Your task to perform on an android device: toggle notification dots Image 0: 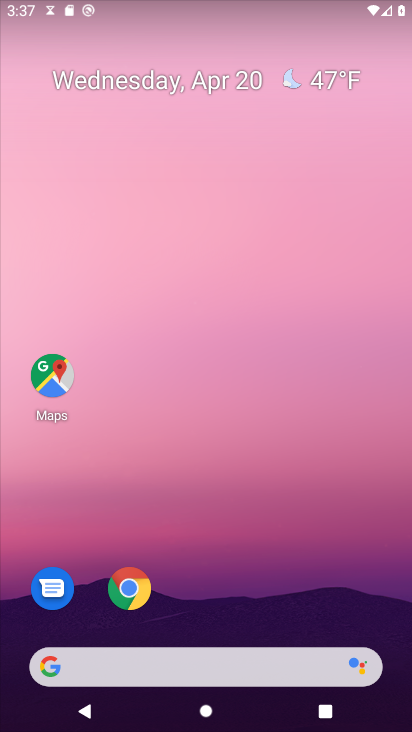
Step 0: drag from (205, 622) to (211, 168)
Your task to perform on an android device: toggle notification dots Image 1: 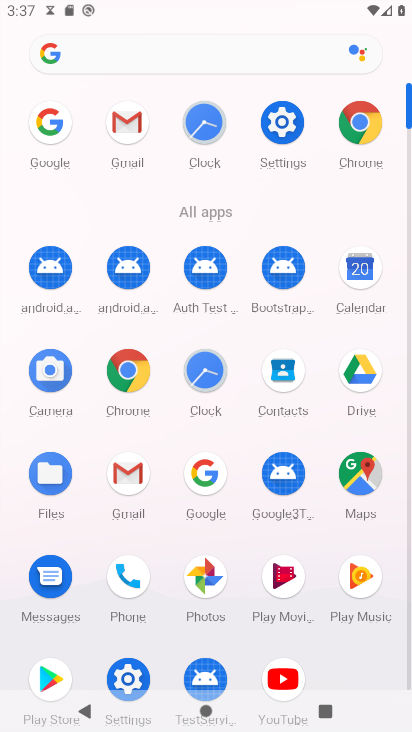
Step 1: click (287, 141)
Your task to perform on an android device: toggle notification dots Image 2: 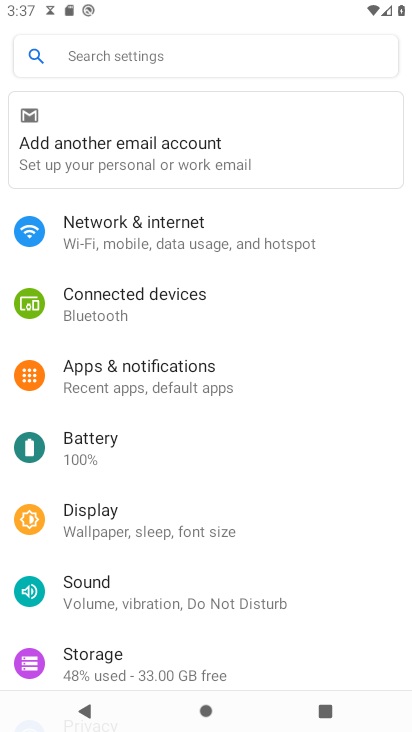
Step 2: click (147, 370)
Your task to perform on an android device: toggle notification dots Image 3: 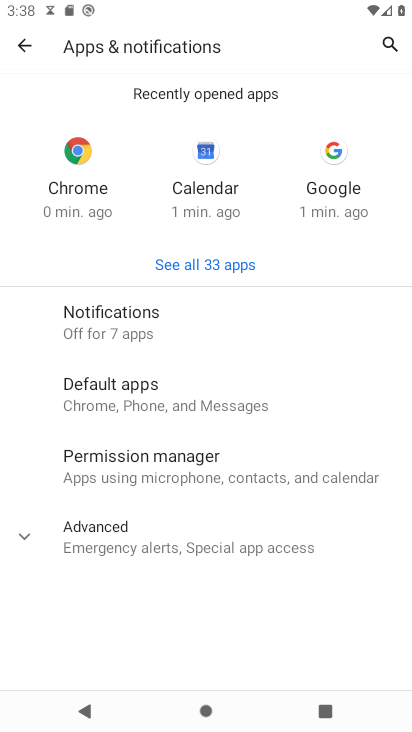
Step 3: click (142, 326)
Your task to perform on an android device: toggle notification dots Image 4: 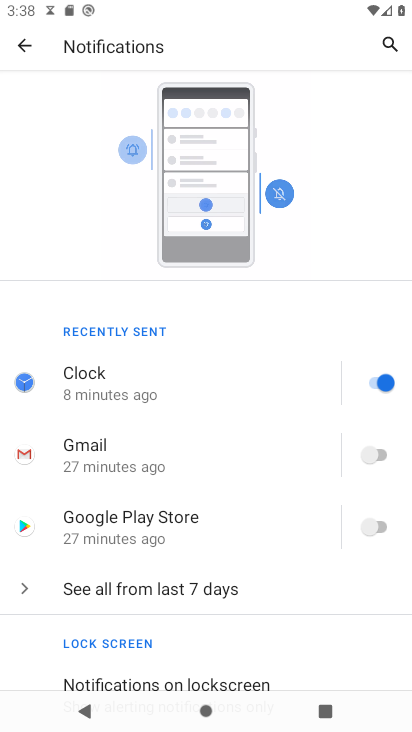
Step 4: drag from (157, 610) to (156, 383)
Your task to perform on an android device: toggle notification dots Image 5: 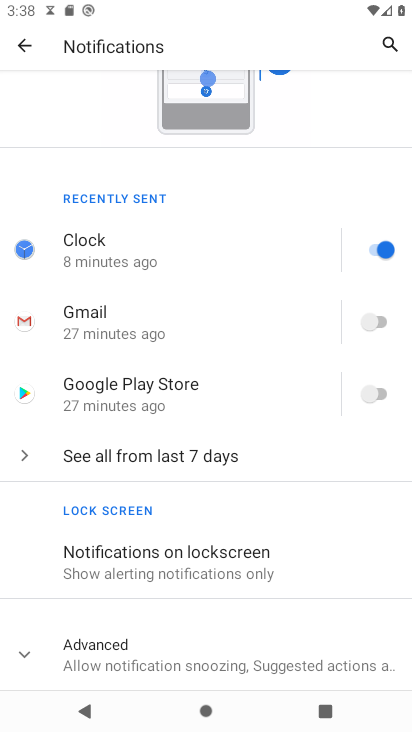
Step 5: click (146, 653)
Your task to perform on an android device: toggle notification dots Image 6: 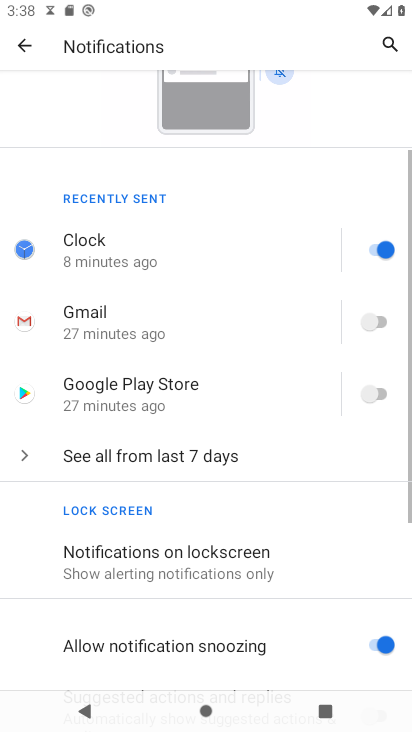
Step 6: drag from (147, 654) to (168, 387)
Your task to perform on an android device: toggle notification dots Image 7: 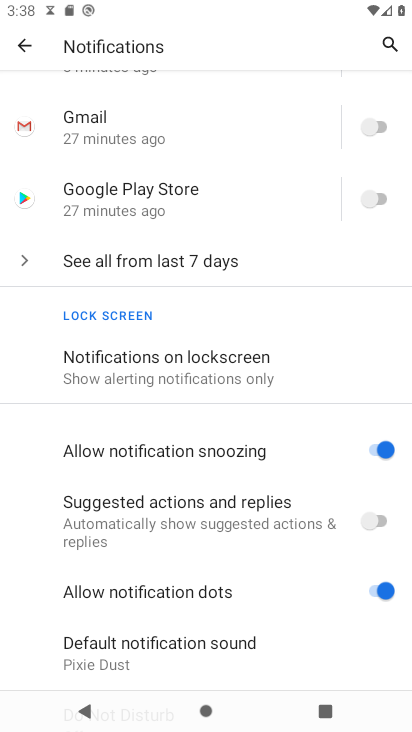
Step 7: click (363, 581)
Your task to perform on an android device: toggle notification dots Image 8: 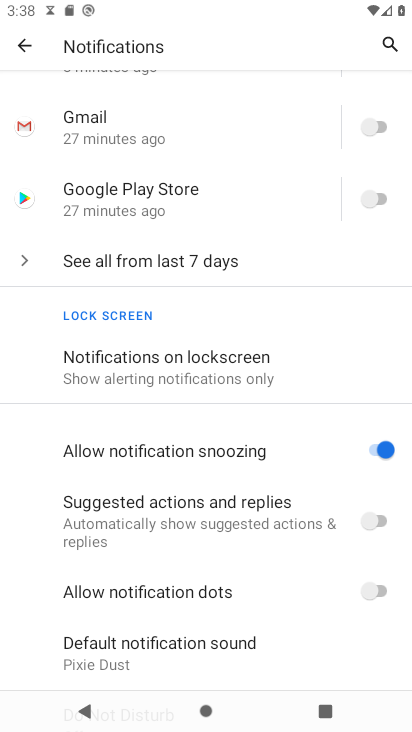
Step 8: task complete